Your task to perform on an android device: delete a single message in the gmail app Image 0: 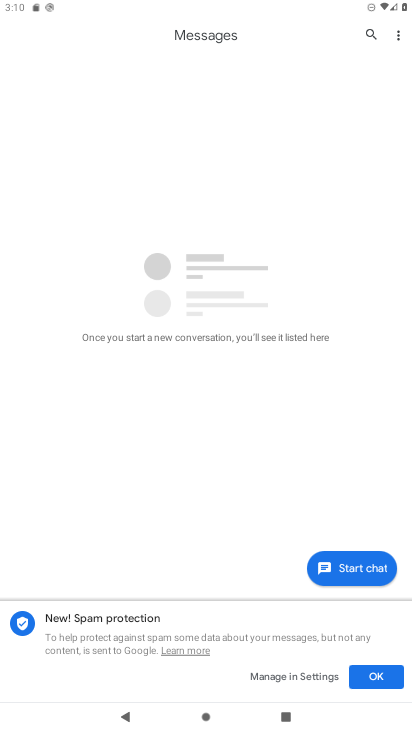
Step 0: press home button
Your task to perform on an android device: delete a single message in the gmail app Image 1: 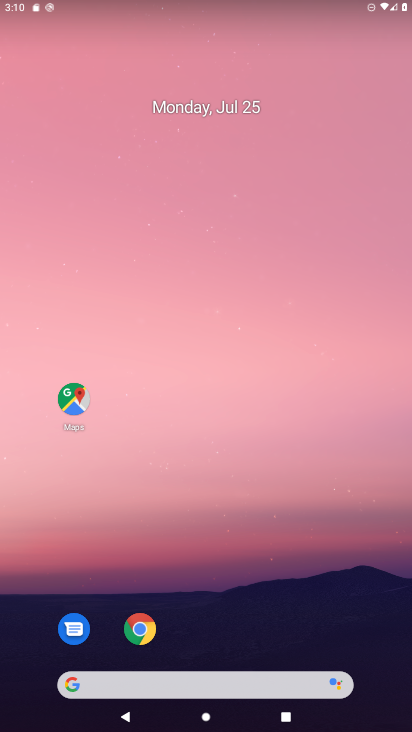
Step 1: drag from (265, 616) to (265, 41)
Your task to perform on an android device: delete a single message in the gmail app Image 2: 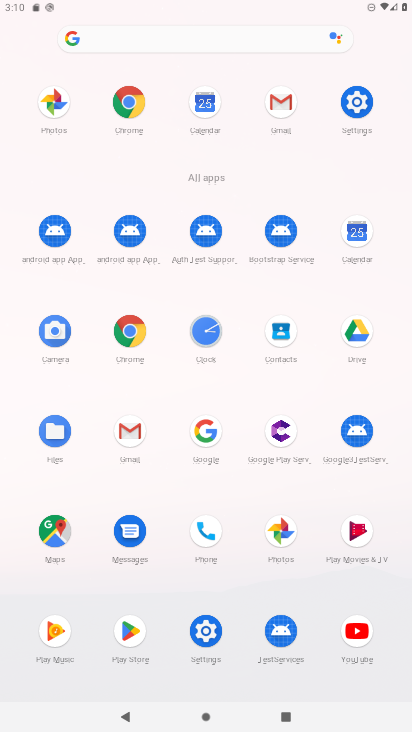
Step 2: click (131, 420)
Your task to perform on an android device: delete a single message in the gmail app Image 3: 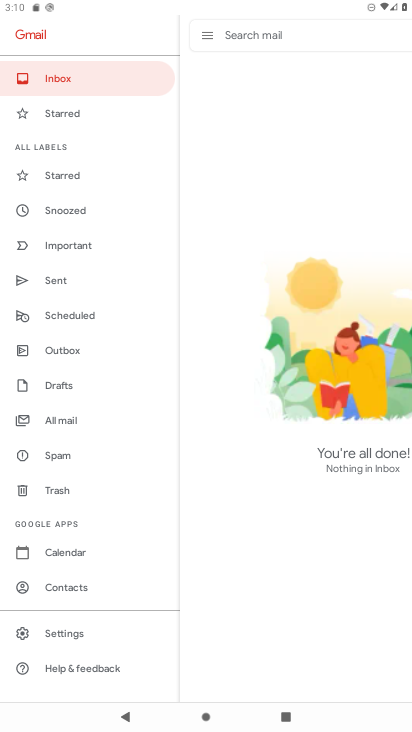
Step 3: click (44, 413)
Your task to perform on an android device: delete a single message in the gmail app Image 4: 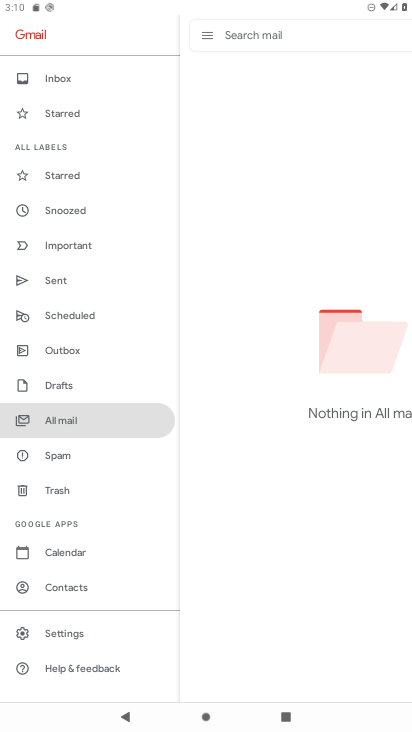
Step 4: task complete